Your task to perform on an android device: Open the Play Movies app and select the watchlist tab. Image 0: 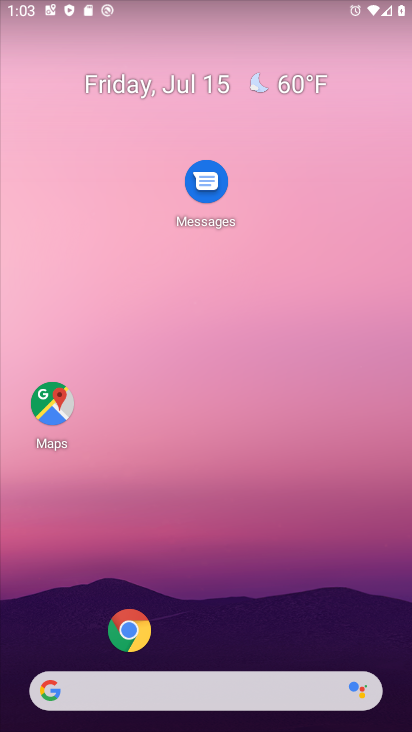
Step 0: click (165, 688)
Your task to perform on an android device: Open the Play Movies app and select the watchlist tab. Image 1: 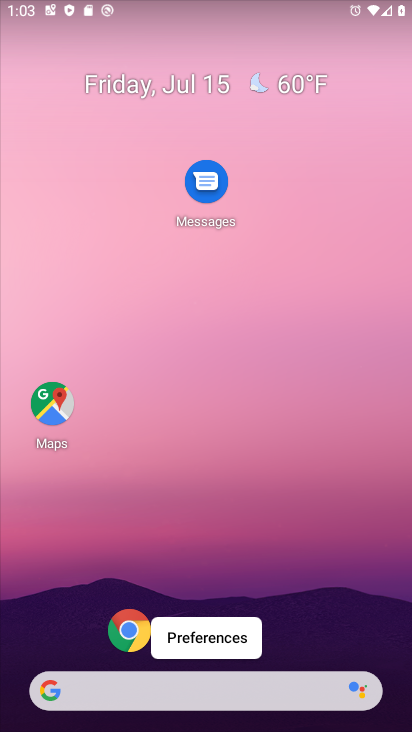
Step 1: drag from (89, 484) to (175, 253)
Your task to perform on an android device: Open the Play Movies app and select the watchlist tab. Image 2: 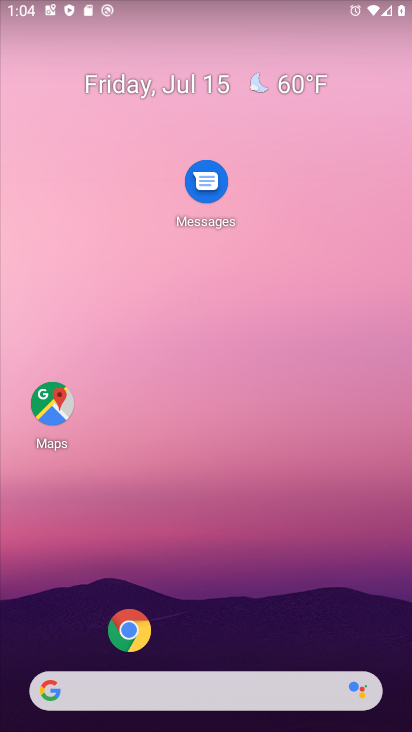
Step 2: drag from (13, 694) to (186, 47)
Your task to perform on an android device: Open the Play Movies app and select the watchlist tab. Image 3: 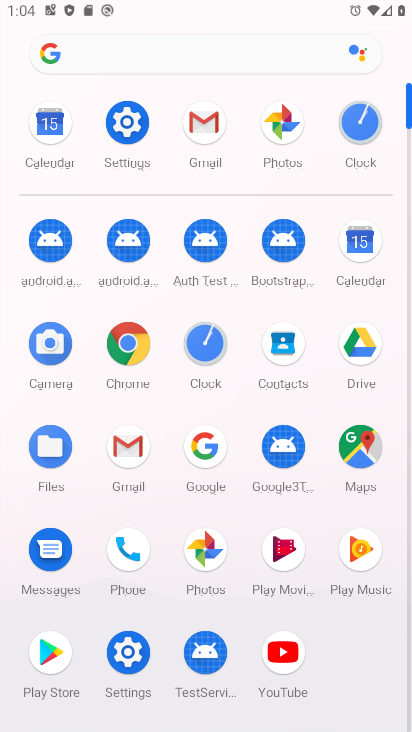
Step 3: click (293, 536)
Your task to perform on an android device: Open the Play Movies app and select the watchlist tab. Image 4: 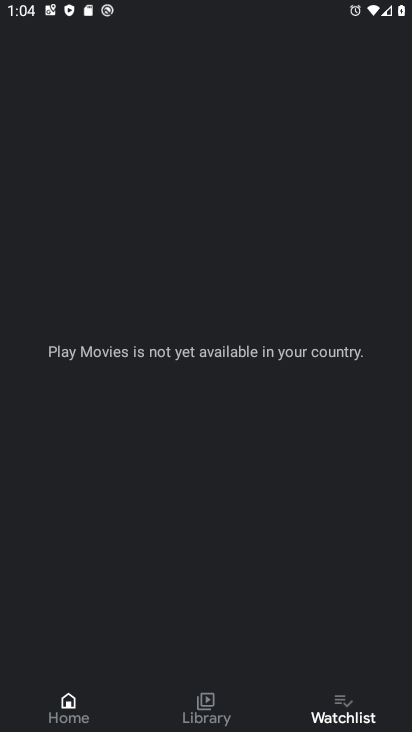
Step 4: task complete